Your task to perform on an android device: find which apps use the phone's location Image 0: 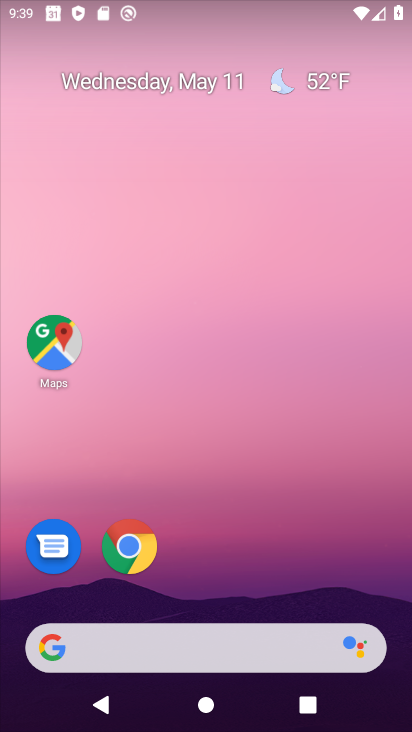
Step 0: drag from (179, 640) to (158, 86)
Your task to perform on an android device: find which apps use the phone's location Image 1: 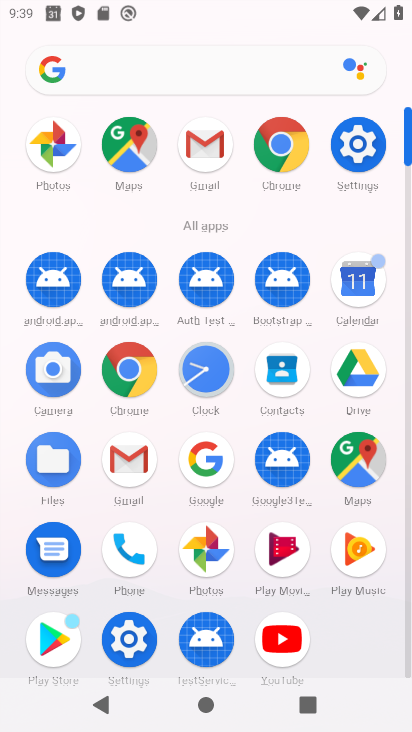
Step 1: click (363, 143)
Your task to perform on an android device: find which apps use the phone's location Image 2: 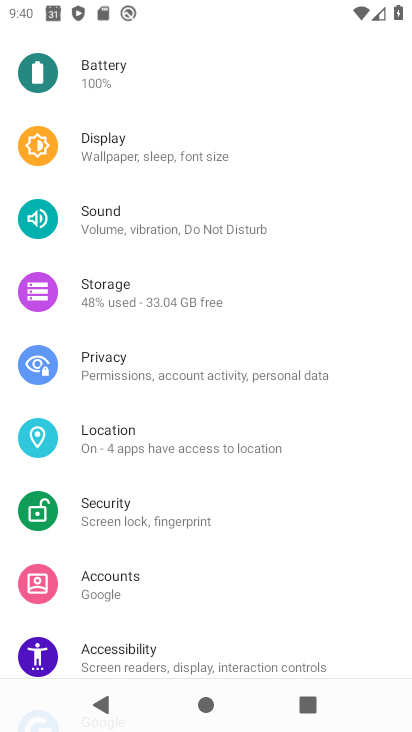
Step 2: click (106, 432)
Your task to perform on an android device: find which apps use the phone's location Image 3: 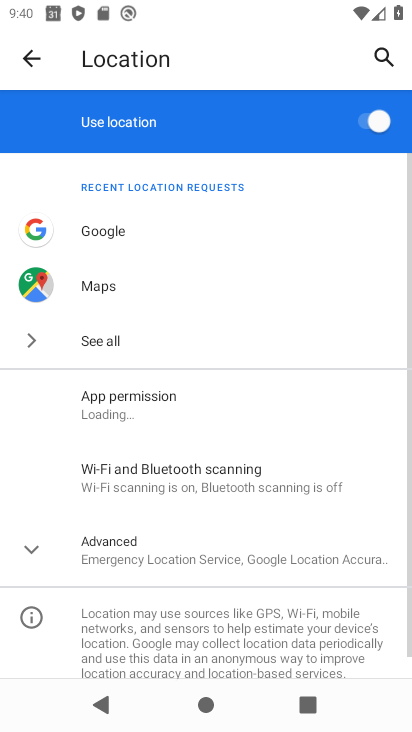
Step 3: click (138, 403)
Your task to perform on an android device: find which apps use the phone's location Image 4: 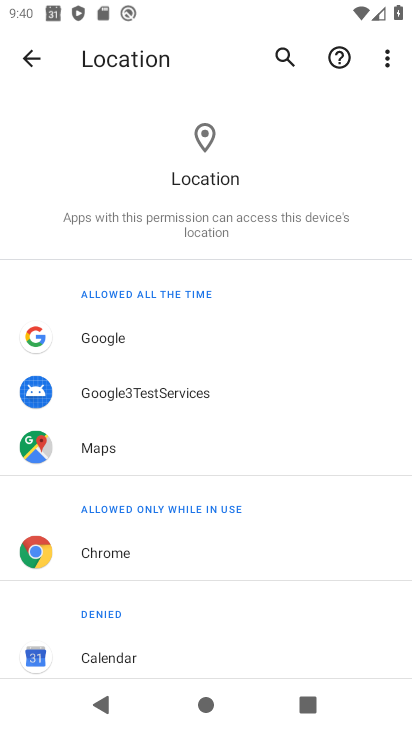
Step 4: task complete